Your task to perform on an android device: turn off data saver in the chrome app Image 0: 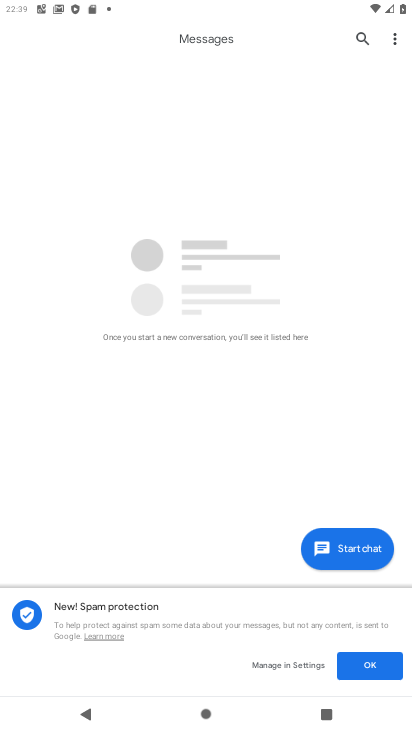
Step 0: press home button
Your task to perform on an android device: turn off data saver in the chrome app Image 1: 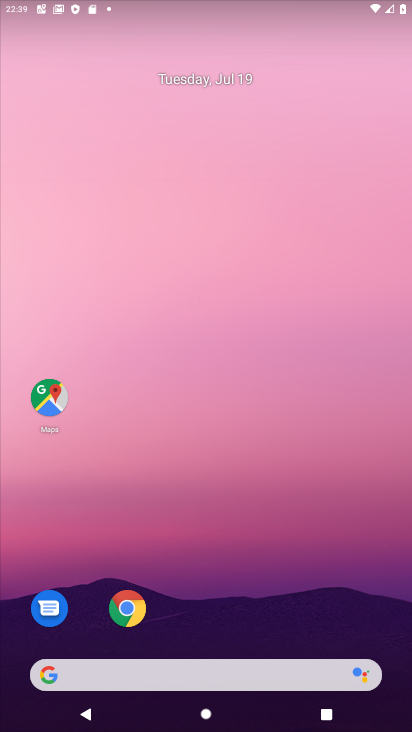
Step 1: drag from (205, 617) to (245, 193)
Your task to perform on an android device: turn off data saver in the chrome app Image 2: 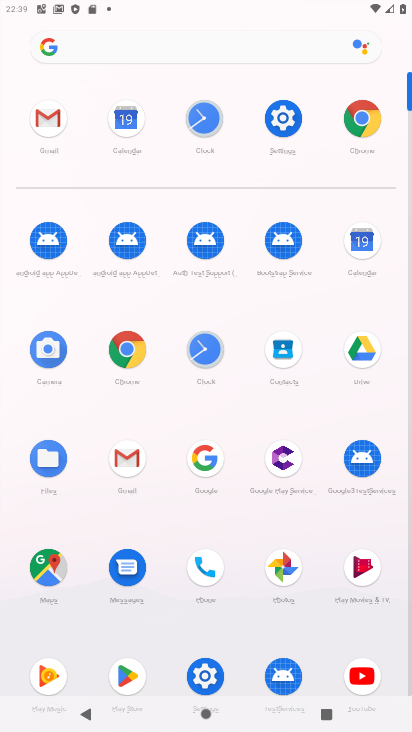
Step 2: click (366, 115)
Your task to perform on an android device: turn off data saver in the chrome app Image 3: 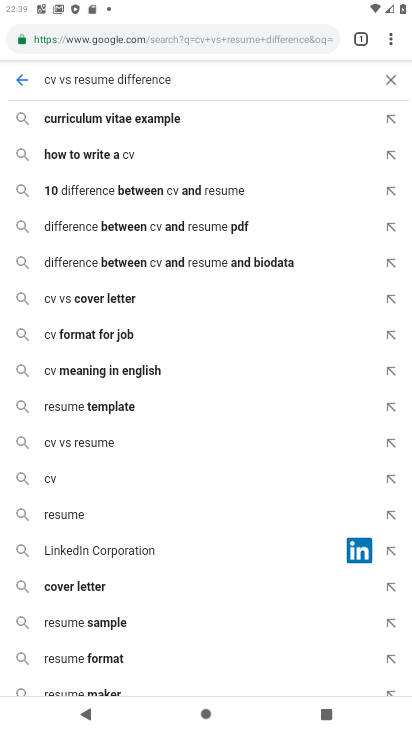
Step 3: drag from (392, 35) to (275, 432)
Your task to perform on an android device: turn off data saver in the chrome app Image 4: 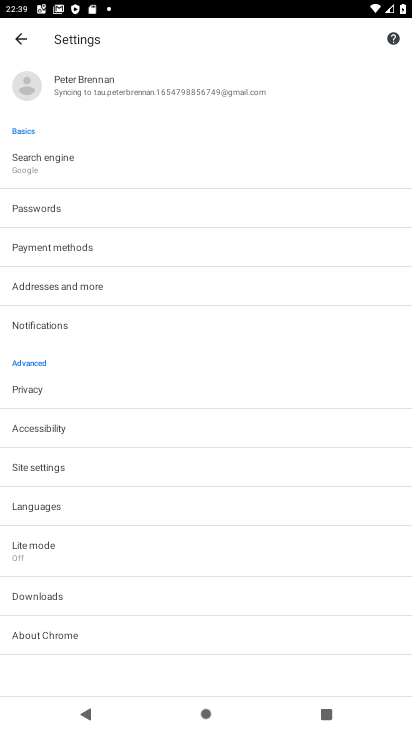
Step 4: click (35, 560)
Your task to perform on an android device: turn off data saver in the chrome app Image 5: 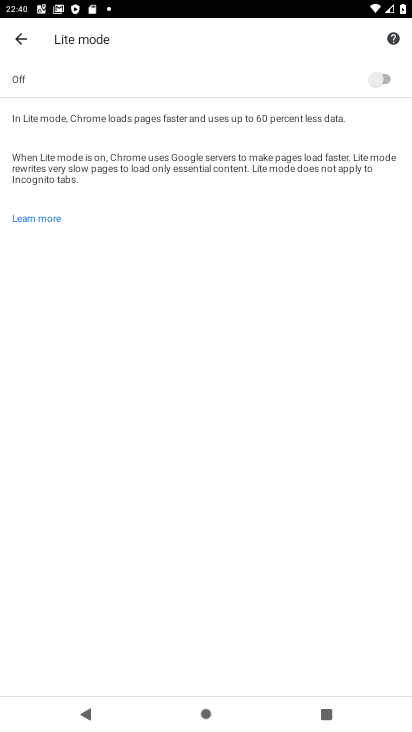
Step 5: task complete